Your task to perform on an android device: all mails in gmail Image 0: 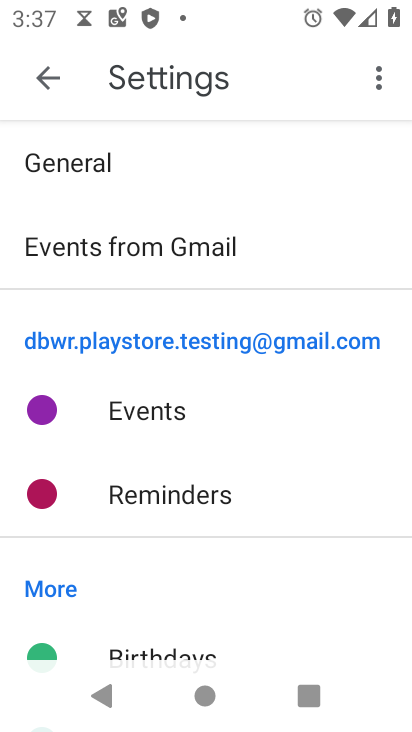
Step 0: press home button
Your task to perform on an android device: all mails in gmail Image 1: 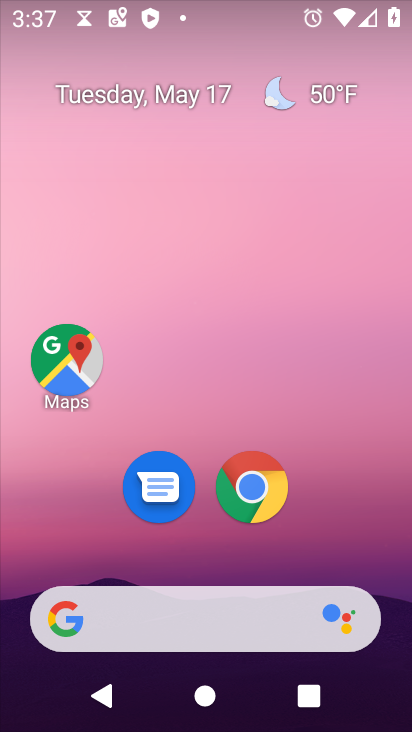
Step 1: drag from (388, 602) to (350, 19)
Your task to perform on an android device: all mails in gmail Image 2: 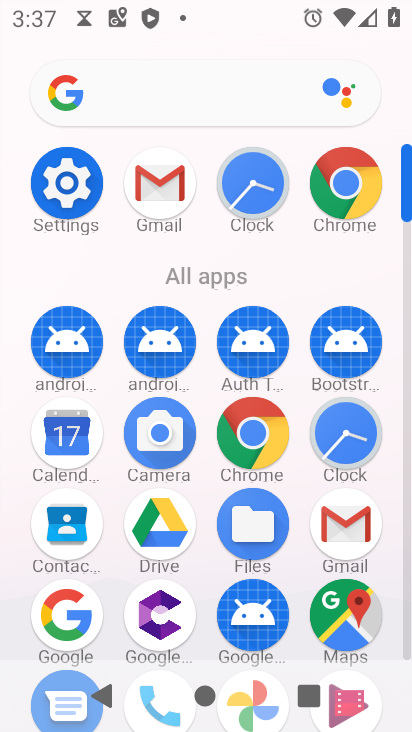
Step 2: click (412, 638)
Your task to perform on an android device: all mails in gmail Image 3: 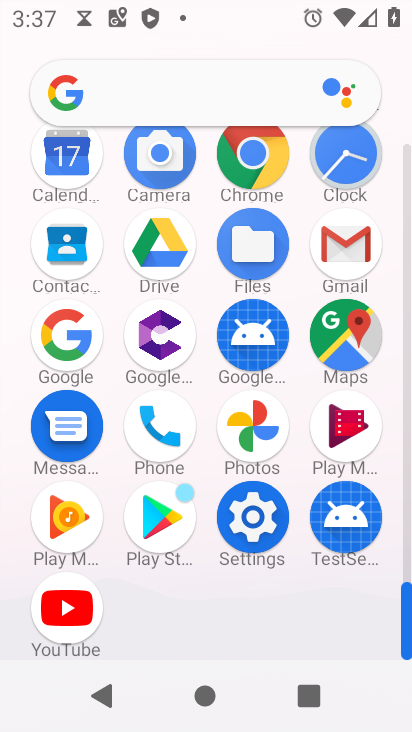
Step 3: click (344, 242)
Your task to perform on an android device: all mails in gmail Image 4: 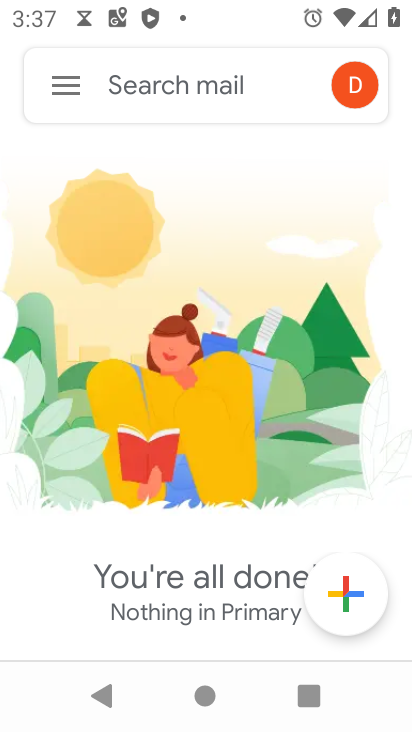
Step 4: click (57, 93)
Your task to perform on an android device: all mails in gmail Image 5: 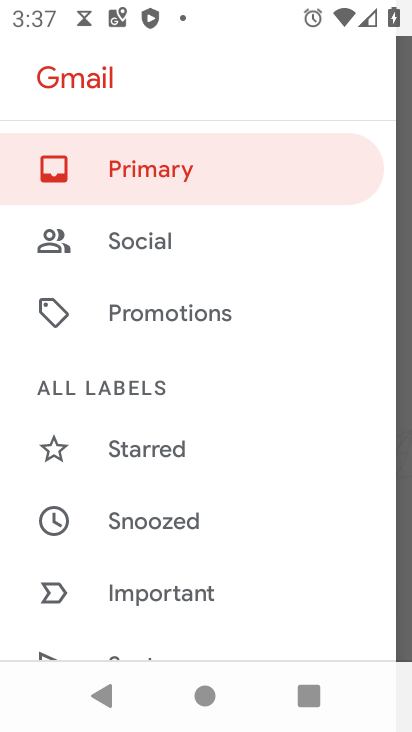
Step 5: drag from (247, 580) to (312, 57)
Your task to perform on an android device: all mails in gmail Image 6: 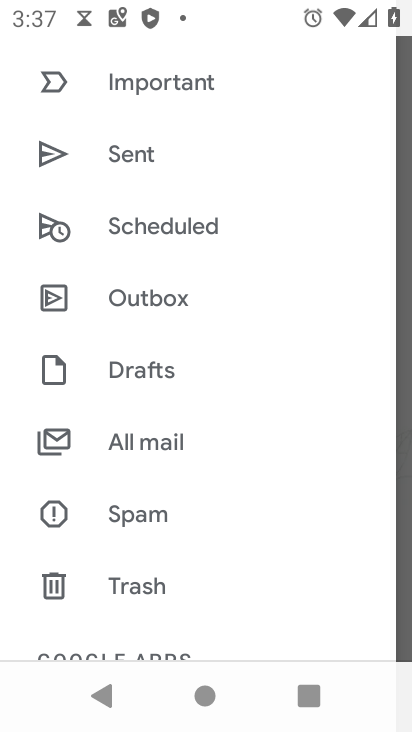
Step 6: click (142, 434)
Your task to perform on an android device: all mails in gmail Image 7: 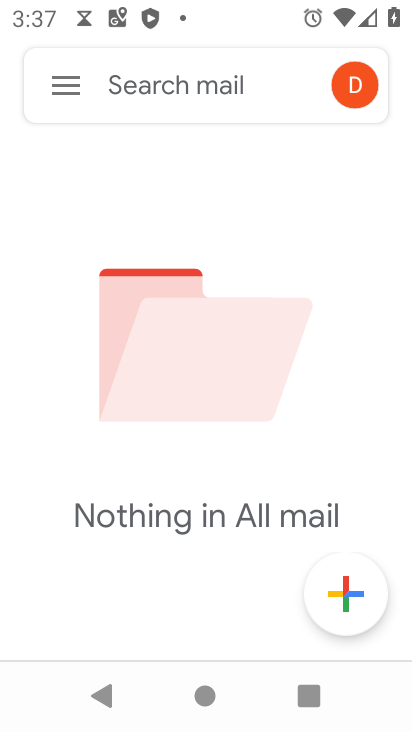
Step 7: task complete